Your task to perform on an android device: change the clock display to analog Image 0: 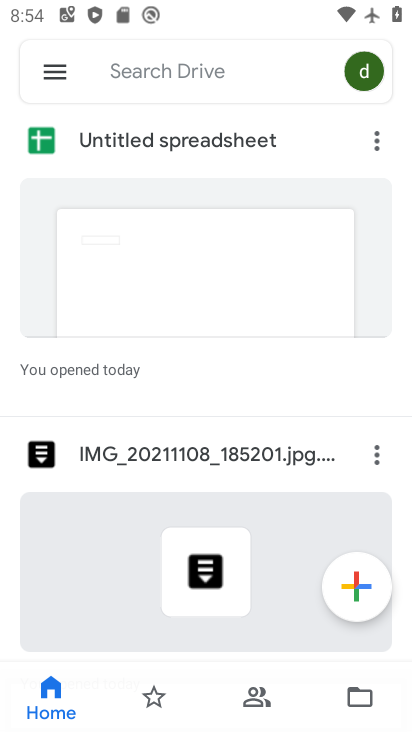
Step 0: press home button
Your task to perform on an android device: change the clock display to analog Image 1: 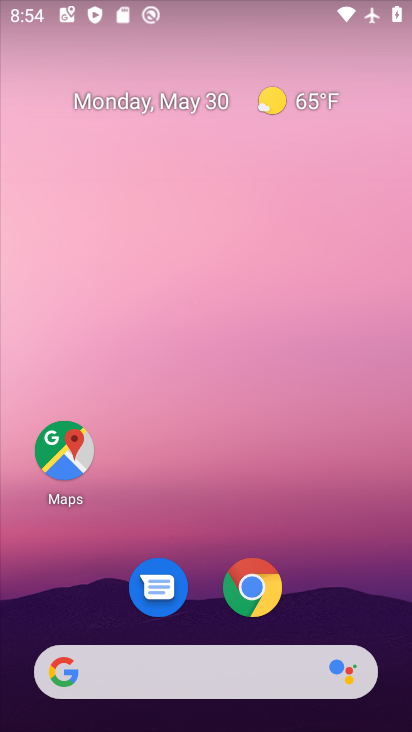
Step 1: drag from (184, 671) to (340, 184)
Your task to perform on an android device: change the clock display to analog Image 2: 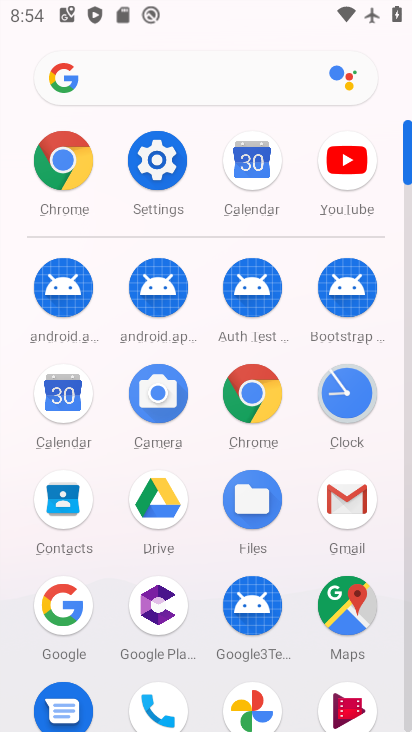
Step 2: click (370, 405)
Your task to perform on an android device: change the clock display to analog Image 3: 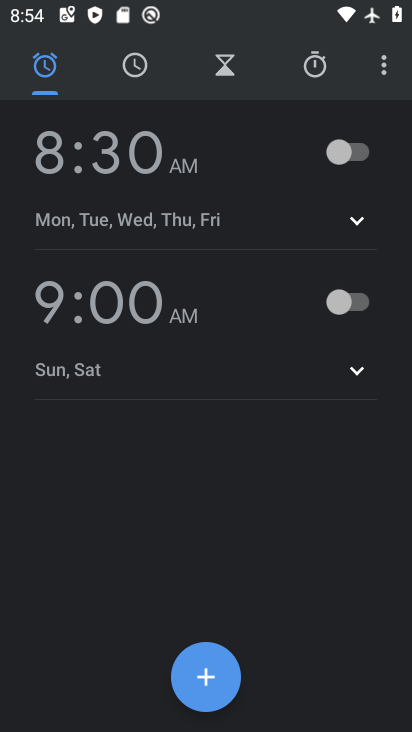
Step 3: click (382, 63)
Your task to perform on an android device: change the clock display to analog Image 4: 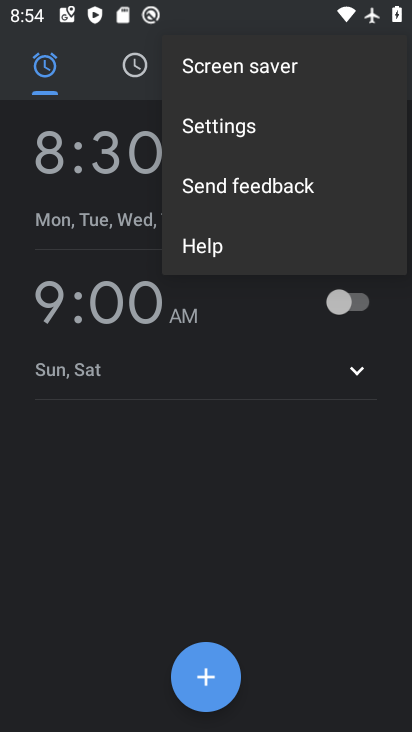
Step 4: click (228, 121)
Your task to perform on an android device: change the clock display to analog Image 5: 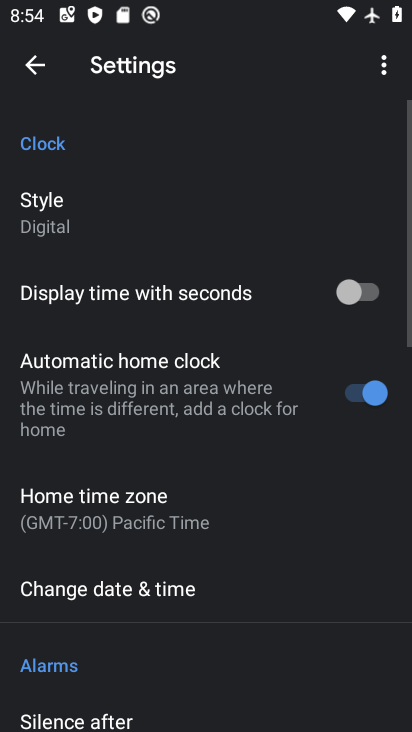
Step 5: click (52, 220)
Your task to perform on an android device: change the clock display to analog Image 6: 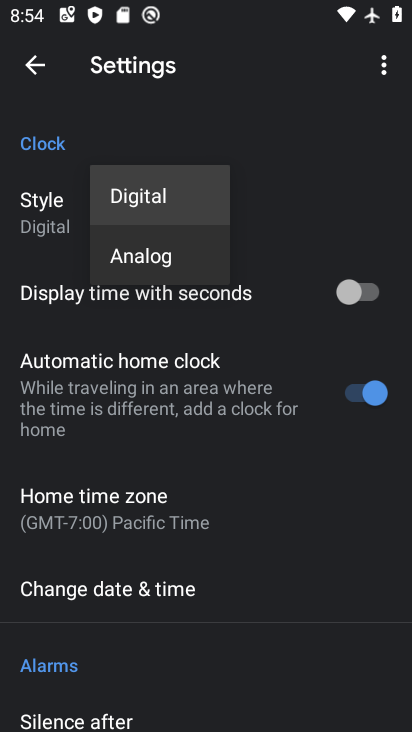
Step 6: click (152, 246)
Your task to perform on an android device: change the clock display to analog Image 7: 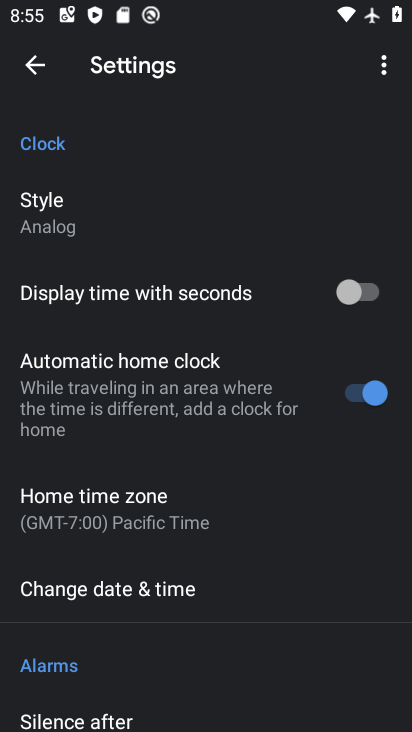
Step 7: task complete